Your task to perform on an android device: Show me the alarms in the clock app Image 0: 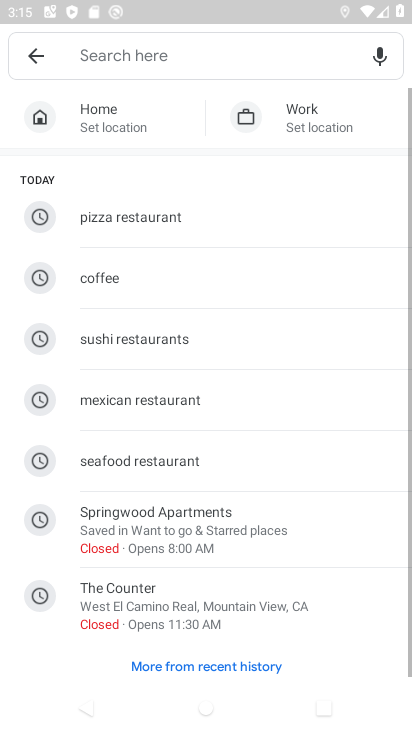
Step 0: drag from (216, 642) to (274, 268)
Your task to perform on an android device: Show me the alarms in the clock app Image 1: 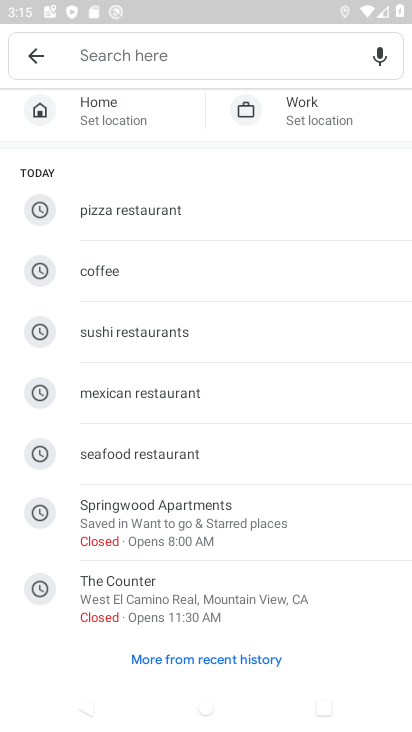
Step 1: press home button
Your task to perform on an android device: Show me the alarms in the clock app Image 2: 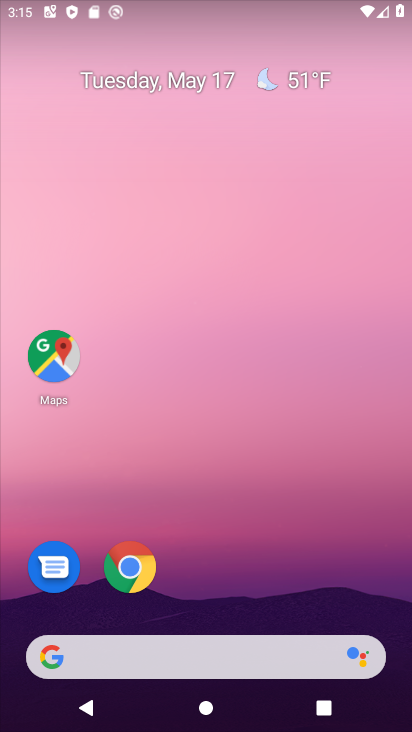
Step 2: drag from (202, 650) to (217, 360)
Your task to perform on an android device: Show me the alarms in the clock app Image 3: 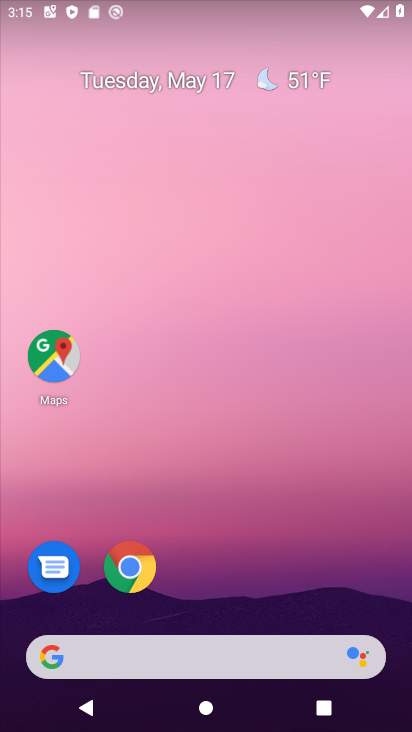
Step 3: drag from (217, 644) to (213, 147)
Your task to perform on an android device: Show me the alarms in the clock app Image 4: 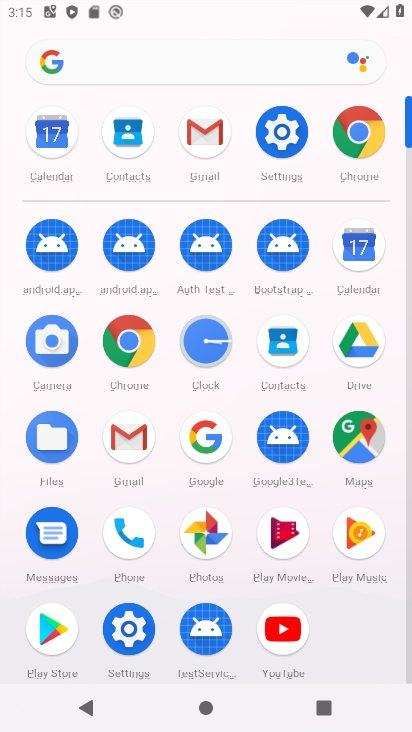
Step 4: click (205, 336)
Your task to perform on an android device: Show me the alarms in the clock app Image 5: 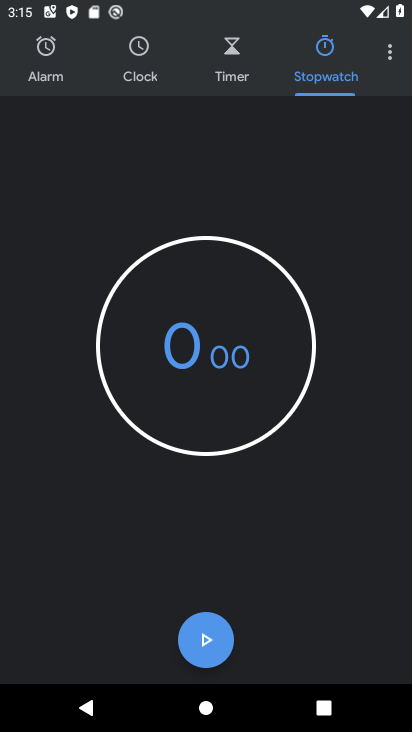
Step 5: click (52, 84)
Your task to perform on an android device: Show me the alarms in the clock app Image 6: 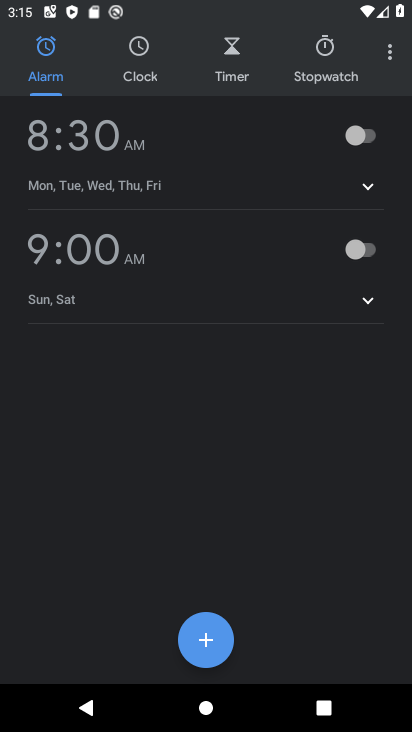
Step 6: task complete